Your task to perform on an android device: Search for Italian restaurants on Maps Image 0: 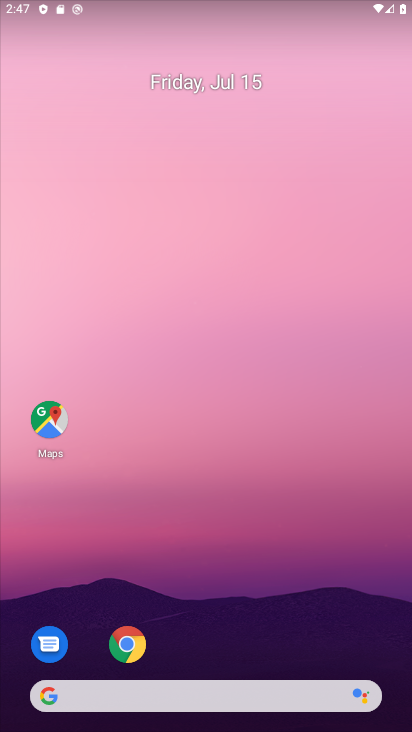
Step 0: drag from (312, 465) to (305, 131)
Your task to perform on an android device: Search for Italian restaurants on Maps Image 1: 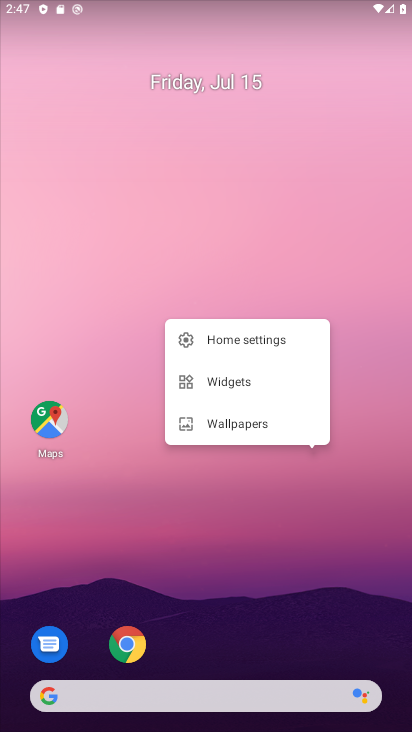
Step 1: drag from (304, 667) to (323, 71)
Your task to perform on an android device: Search for Italian restaurants on Maps Image 2: 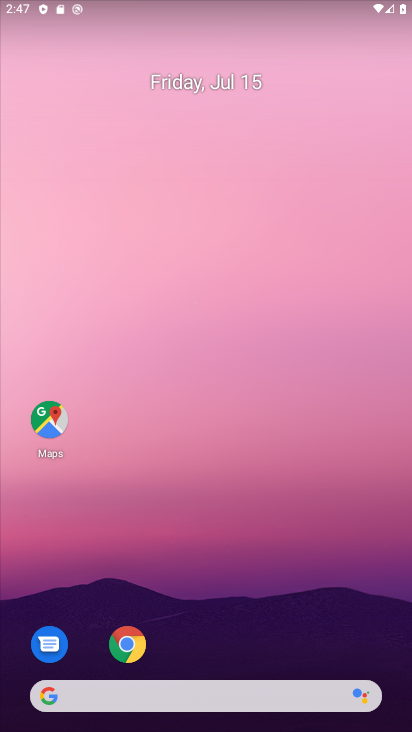
Step 2: drag from (280, 633) to (296, 15)
Your task to perform on an android device: Search for Italian restaurants on Maps Image 3: 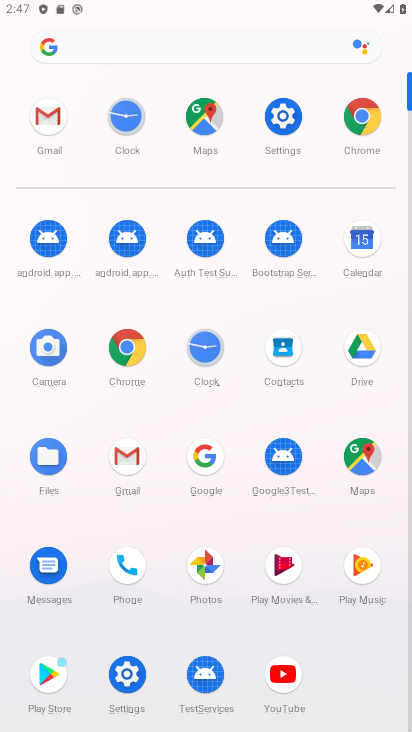
Step 3: click (365, 447)
Your task to perform on an android device: Search for Italian restaurants on Maps Image 4: 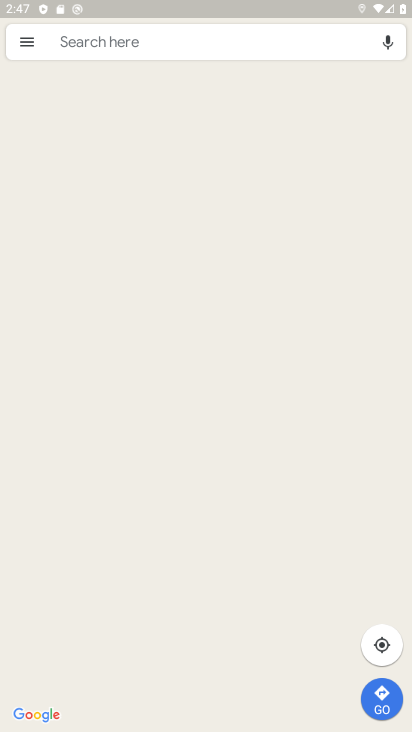
Step 4: click (244, 39)
Your task to perform on an android device: Search for Italian restaurants on Maps Image 5: 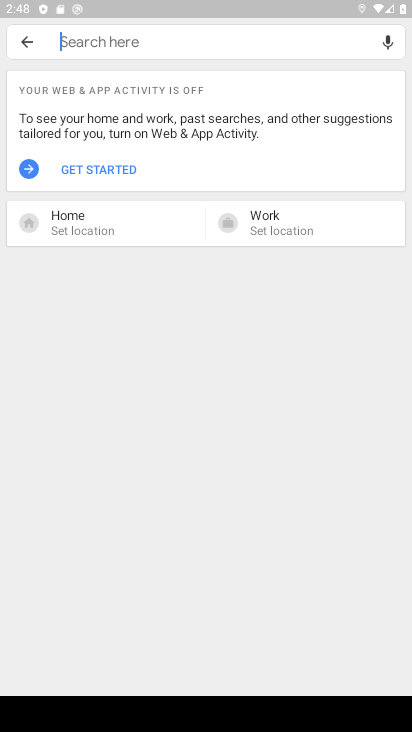
Step 5: type "italian restaurant"
Your task to perform on an android device: Search for Italian restaurants on Maps Image 6: 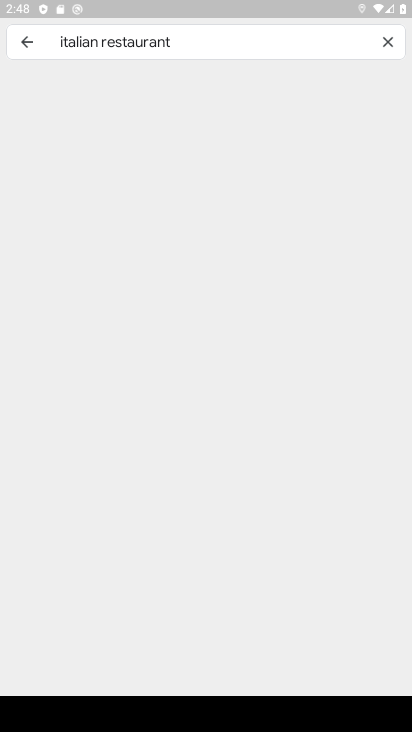
Step 6: click (386, 43)
Your task to perform on an android device: Search for Italian restaurants on Maps Image 7: 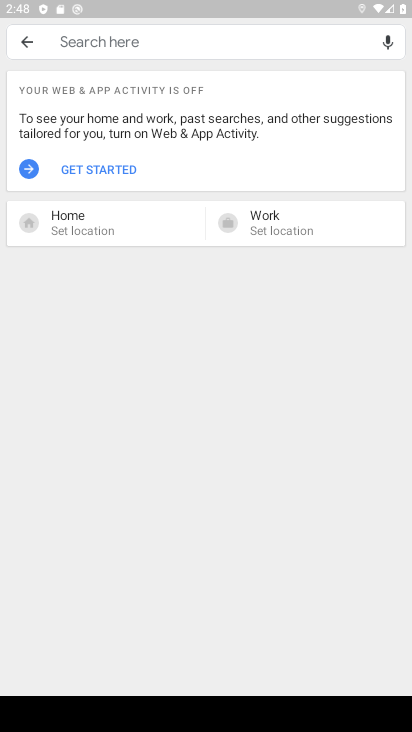
Step 7: type "italian restaurant"
Your task to perform on an android device: Search for Italian restaurants on Maps Image 8: 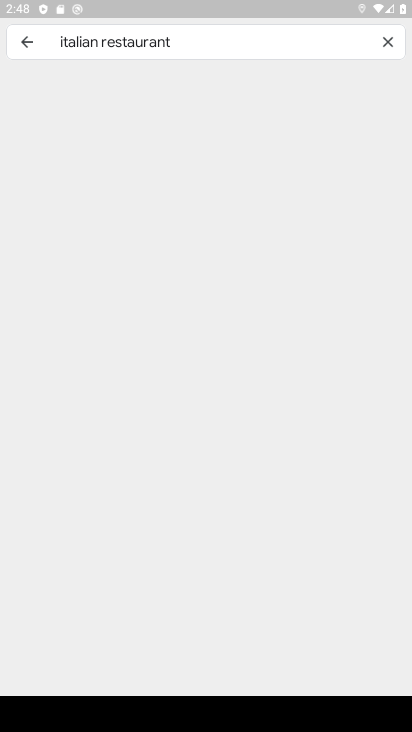
Step 8: task complete